Your task to perform on an android device: Open privacy settings Image 0: 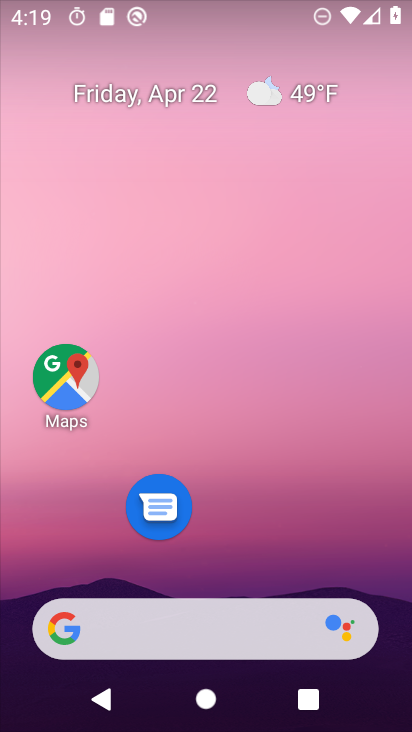
Step 0: drag from (212, 442) to (279, 116)
Your task to perform on an android device: Open privacy settings Image 1: 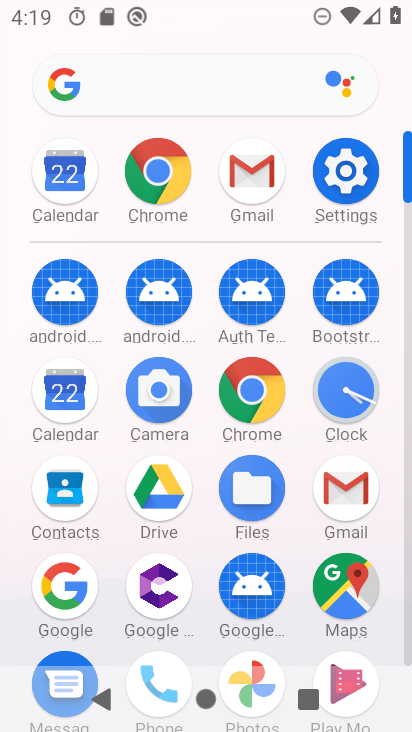
Step 1: click (350, 170)
Your task to perform on an android device: Open privacy settings Image 2: 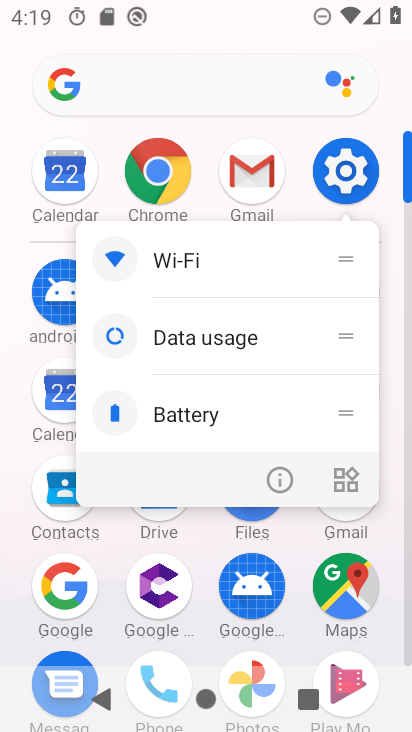
Step 2: click (364, 171)
Your task to perform on an android device: Open privacy settings Image 3: 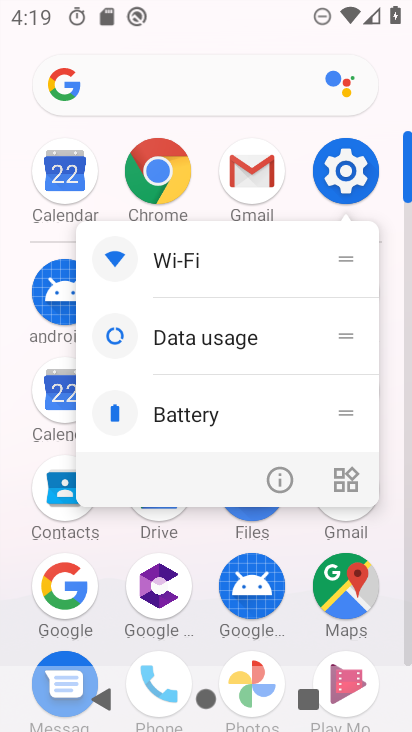
Step 3: click (359, 166)
Your task to perform on an android device: Open privacy settings Image 4: 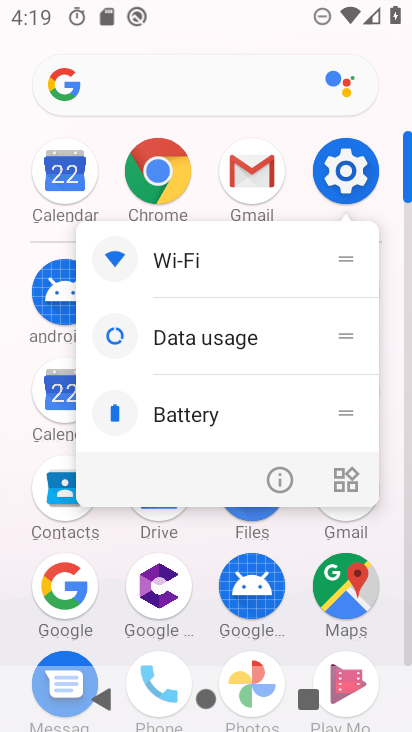
Step 4: click (353, 174)
Your task to perform on an android device: Open privacy settings Image 5: 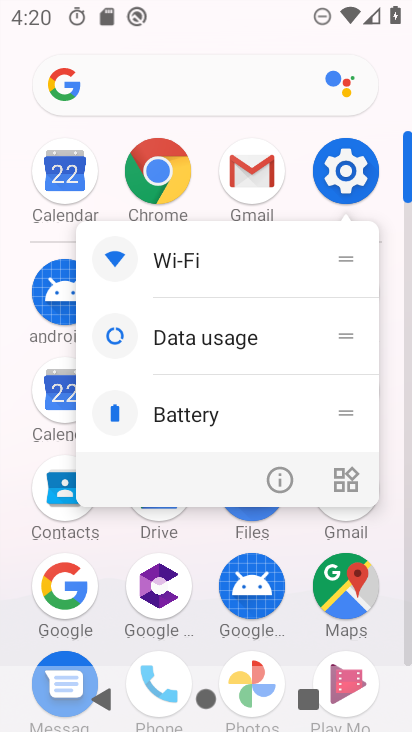
Step 5: click (350, 166)
Your task to perform on an android device: Open privacy settings Image 6: 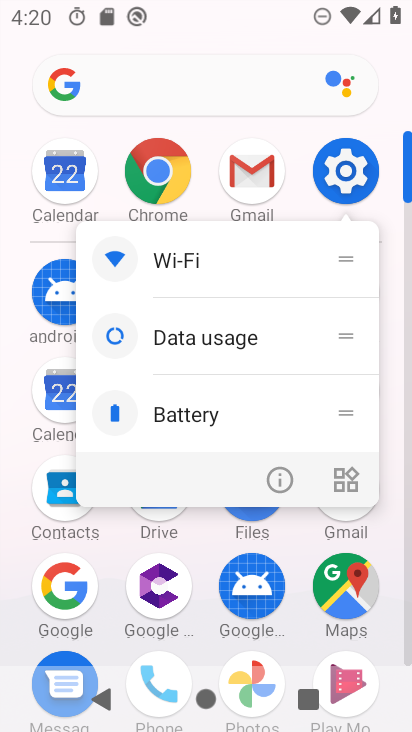
Step 6: click (349, 173)
Your task to perform on an android device: Open privacy settings Image 7: 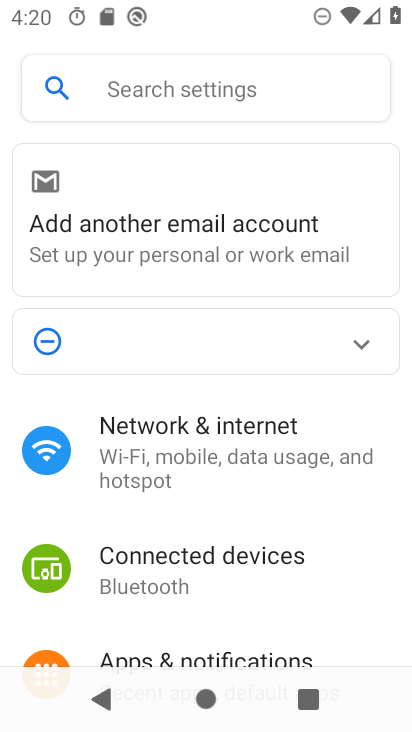
Step 7: drag from (192, 601) to (311, 183)
Your task to perform on an android device: Open privacy settings Image 8: 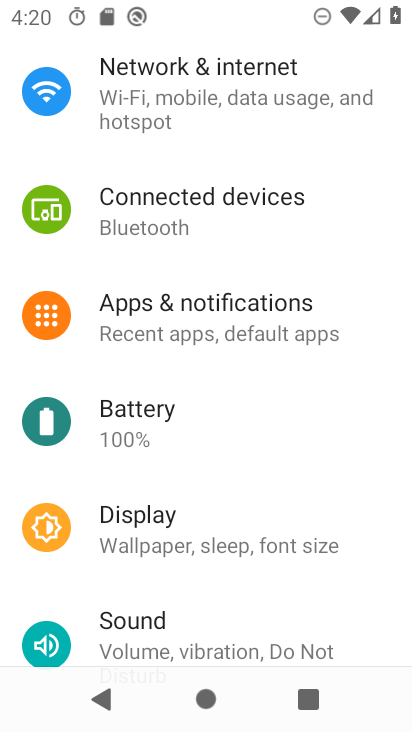
Step 8: drag from (162, 619) to (278, 119)
Your task to perform on an android device: Open privacy settings Image 9: 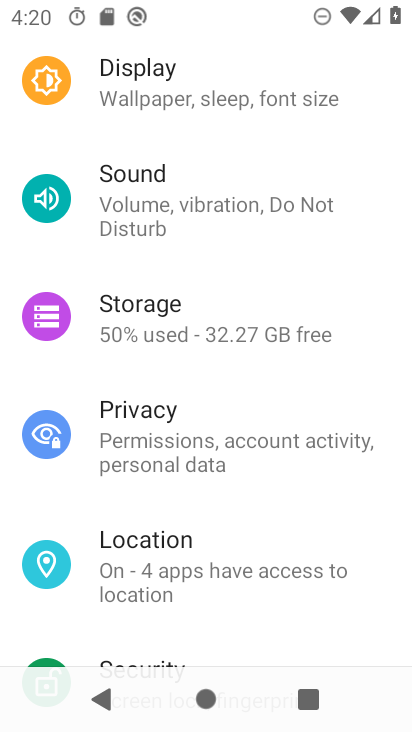
Step 9: click (208, 429)
Your task to perform on an android device: Open privacy settings Image 10: 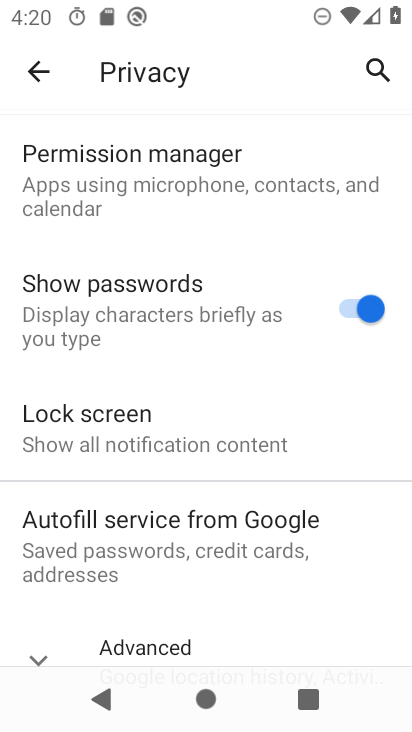
Step 10: task complete